Your task to perform on an android device: Search for seafood restaurants on Google Maps Image 0: 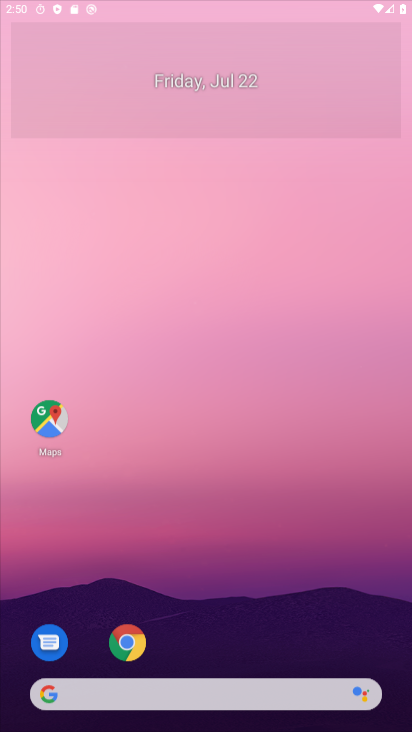
Step 0: press home button
Your task to perform on an android device: Search for seafood restaurants on Google Maps Image 1: 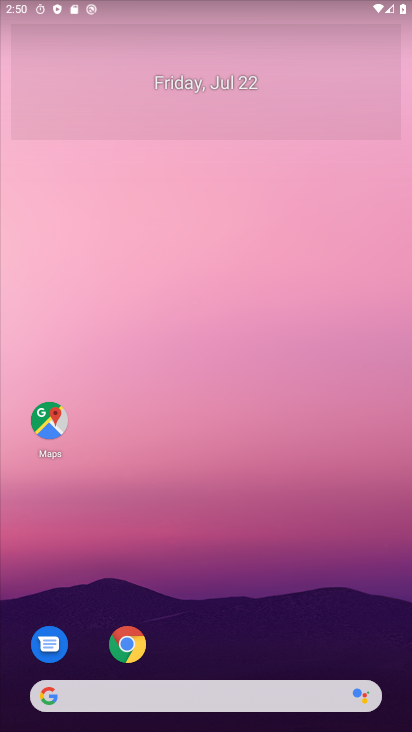
Step 1: drag from (214, 657) to (235, 135)
Your task to perform on an android device: Search for seafood restaurants on Google Maps Image 2: 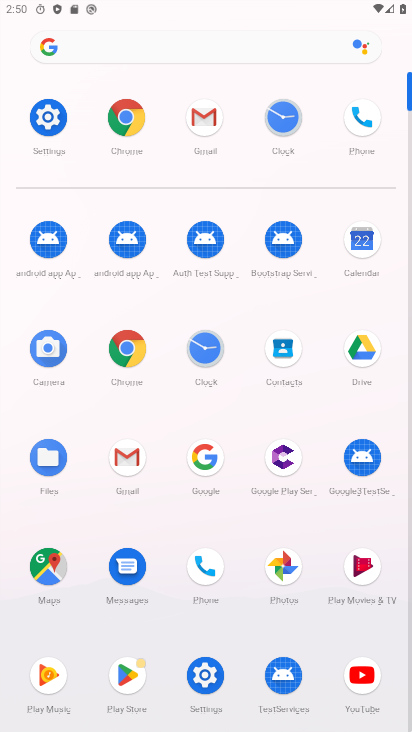
Step 2: click (50, 564)
Your task to perform on an android device: Search for seafood restaurants on Google Maps Image 3: 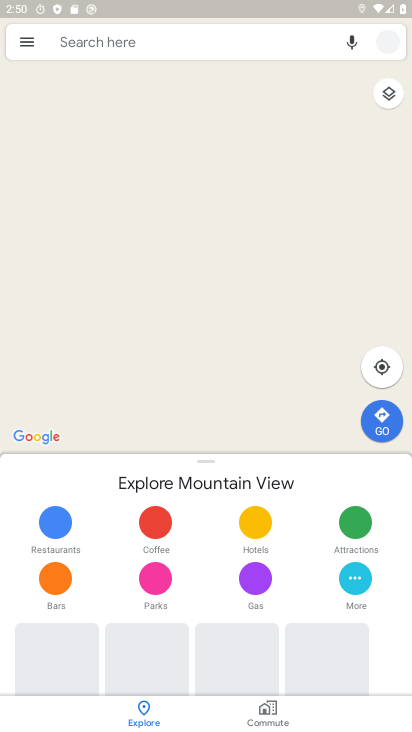
Step 3: click (134, 43)
Your task to perform on an android device: Search for seafood restaurants on Google Maps Image 4: 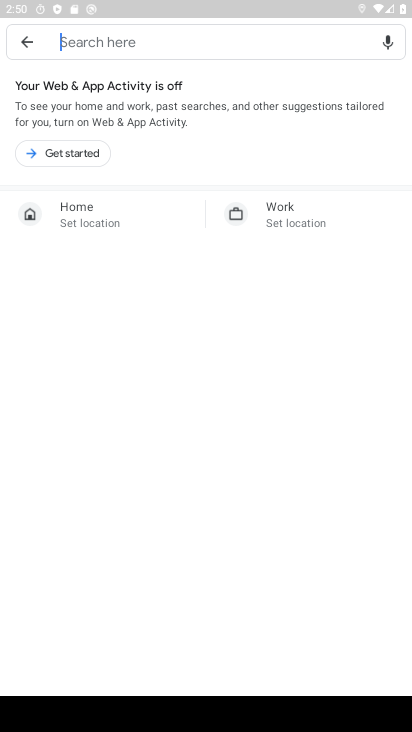
Step 4: click (93, 159)
Your task to perform on an android device: Search for seafood restaurants on Google Maps Image 5: 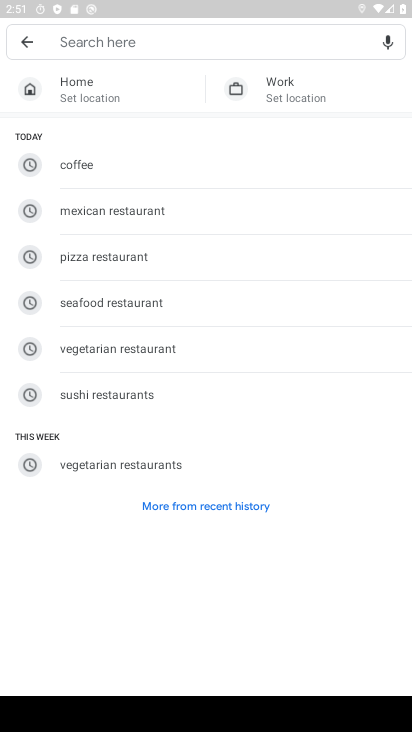
Step 5: click (107, 304)
Your task to perform on an android device: Search for seafood restaurants on Google Maps Image 6: 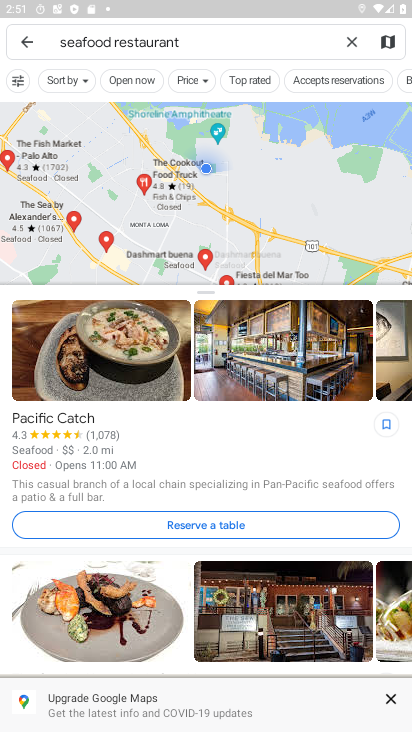
Step 6: task complete